Your task to perform on an android device: Open my contact list Image 0: 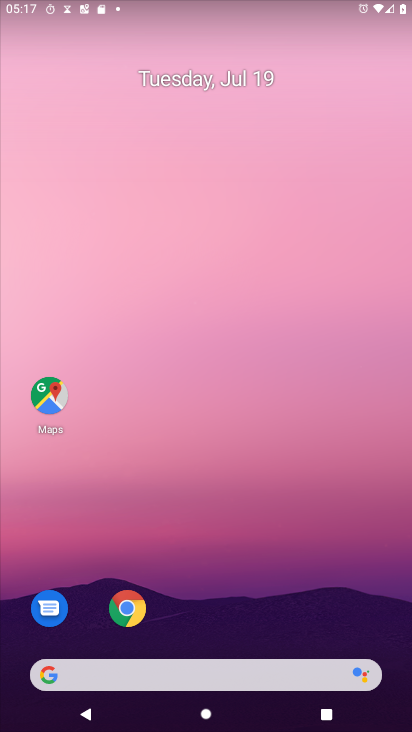
Step 0: drag from (209, 666) to (254, 111)
Your task to perform on an android device: Open my contact list Image 1: 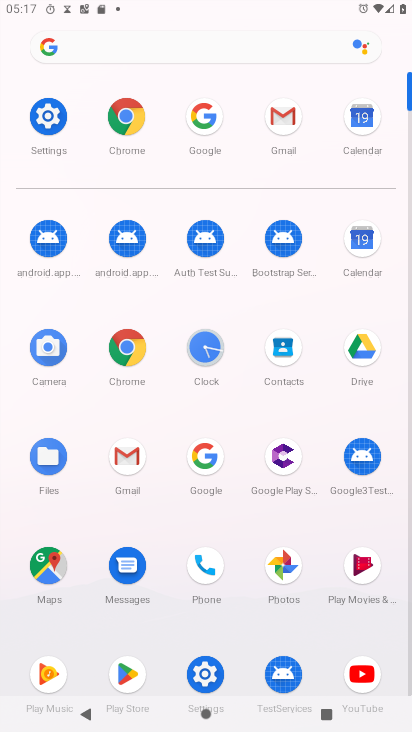
Step 1: click (284, 348)
Your task to perform on an android device: Open my contact list Image 2: 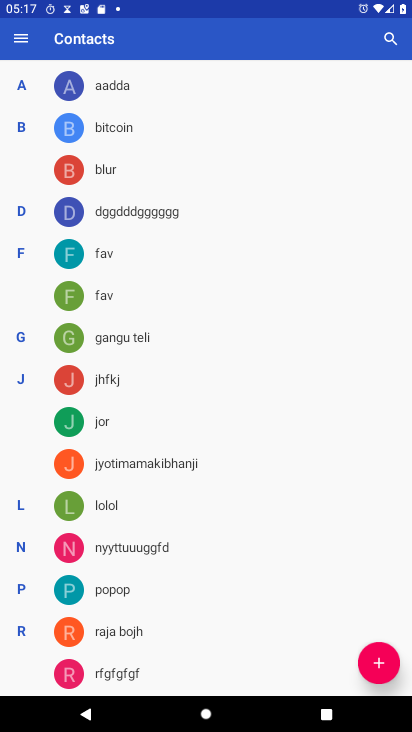
Step 2: task complete